Your task to perform on an android device: change keyboard looks Image 0: 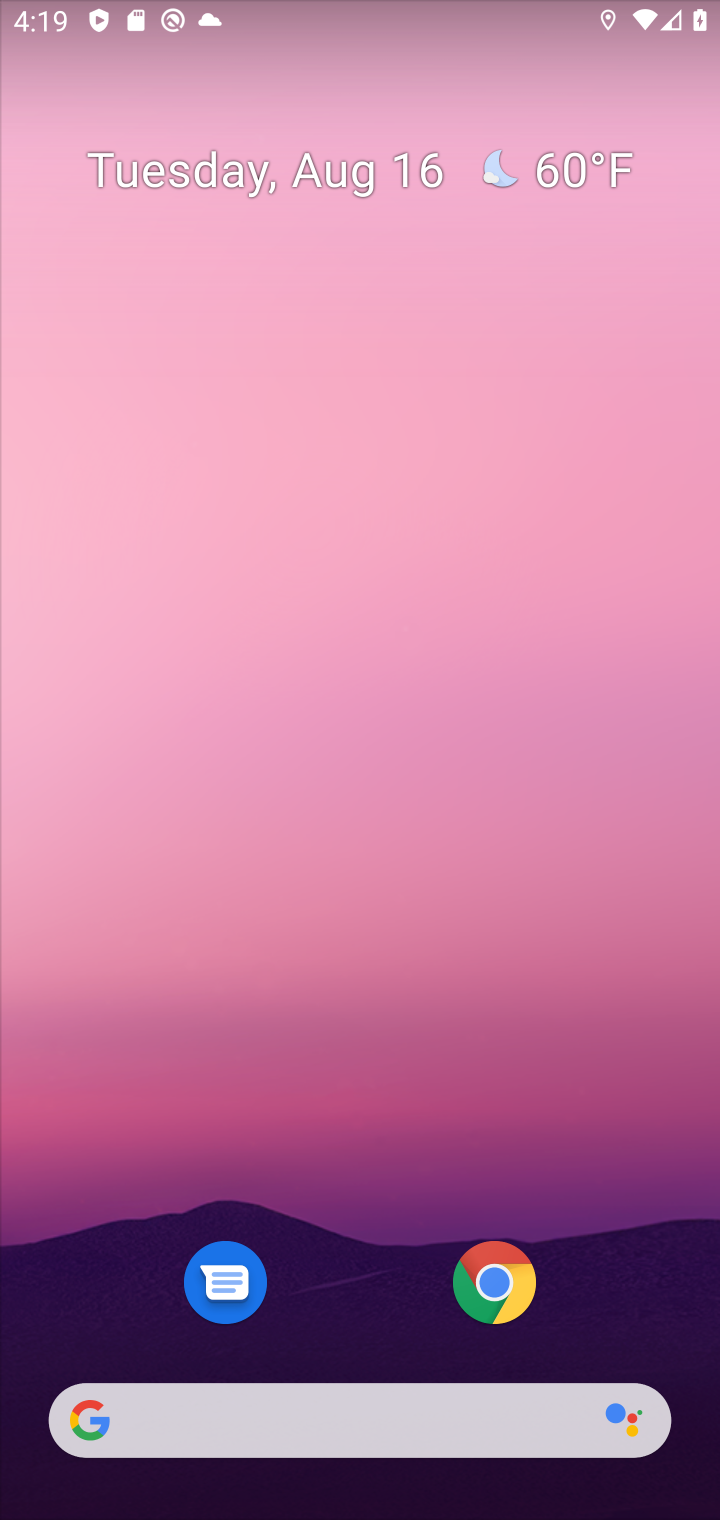
Step 0: drag from (353, 1279) to (467, 145)
Your task to perform on an android device: change keyboard looks Image 1: 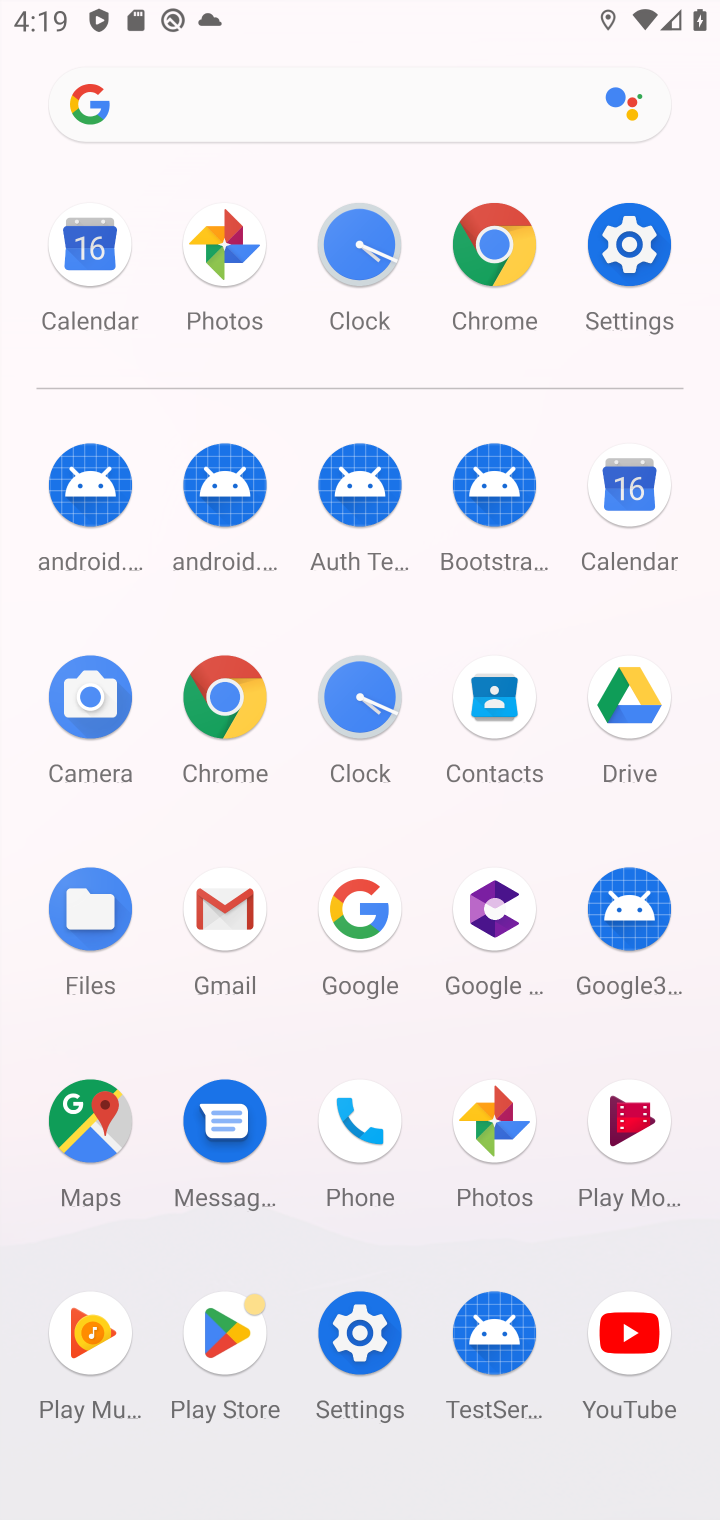
Step 1: click (639, 243)
Your task to perform on an android device: change keyboard looks Image 2: 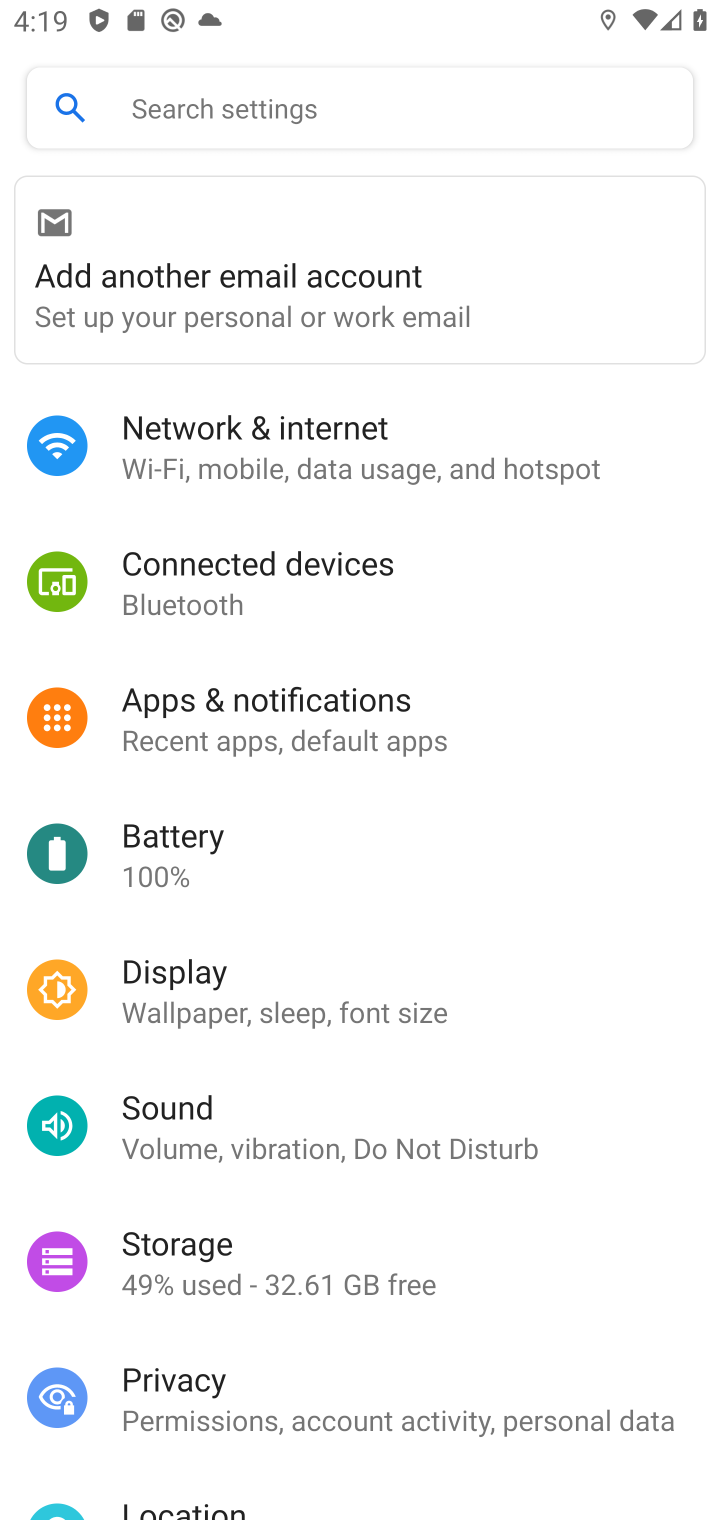
Step 2: drag from (340, 1012) to (620, 39)
Your task to perform on an android device: change keyboard looks Image 3: 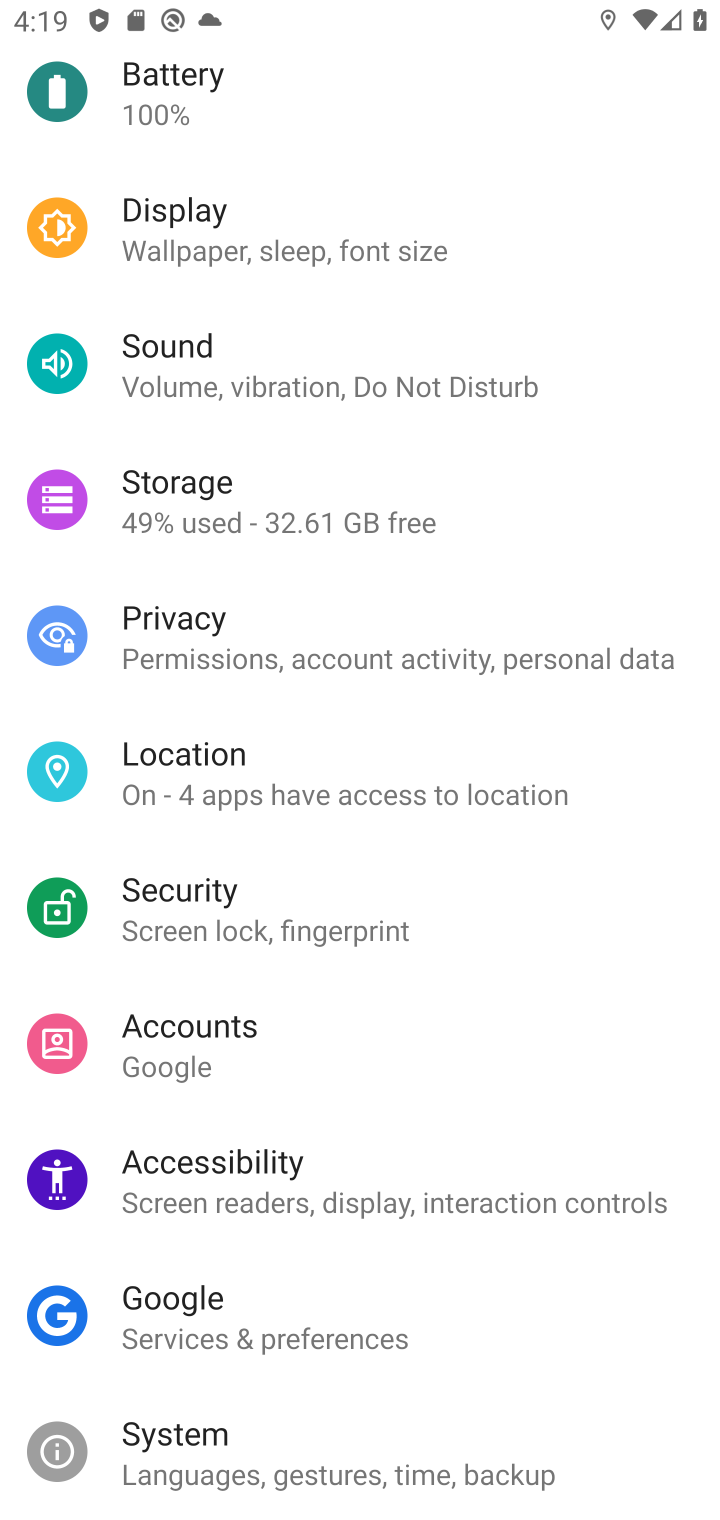
Step 3: drag from (239, 1290) to (421, 35)
Your task to perform on an android device: change keyboard looks Image 4: 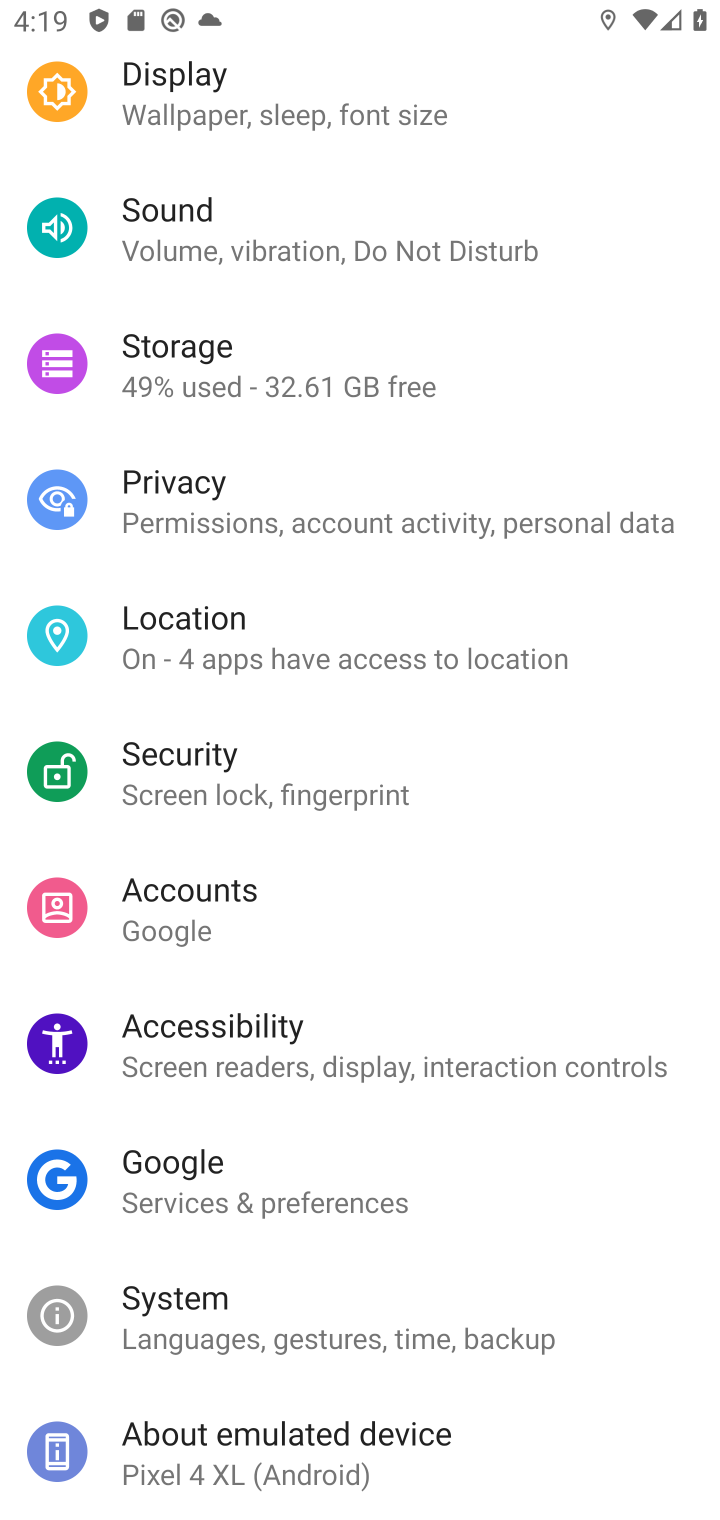
Step 4: click (192, 1318)
Your task to perform on an android device: change keyboard looks Image 5: 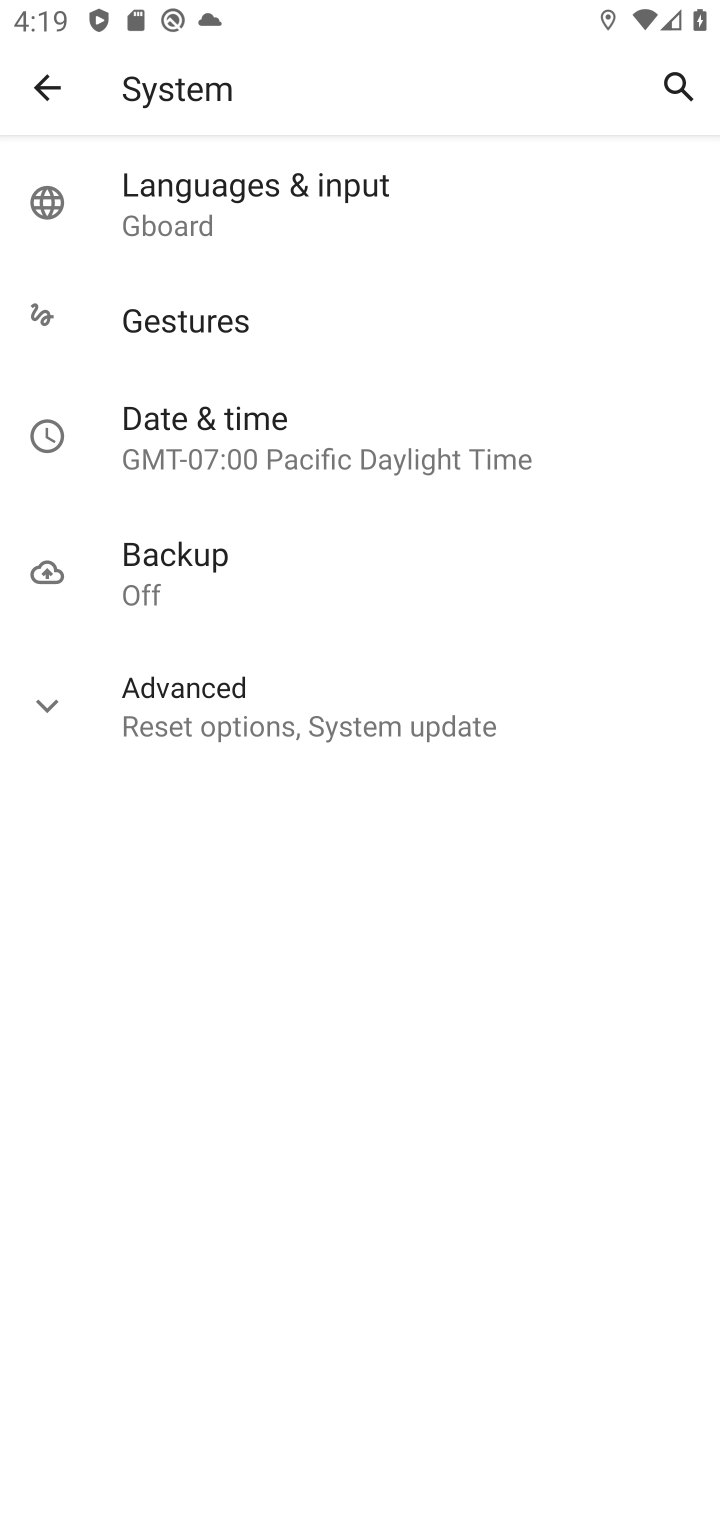
Step 5: click (274, 194)
Your task to perform on an android device: change keyboard looks Image 6: 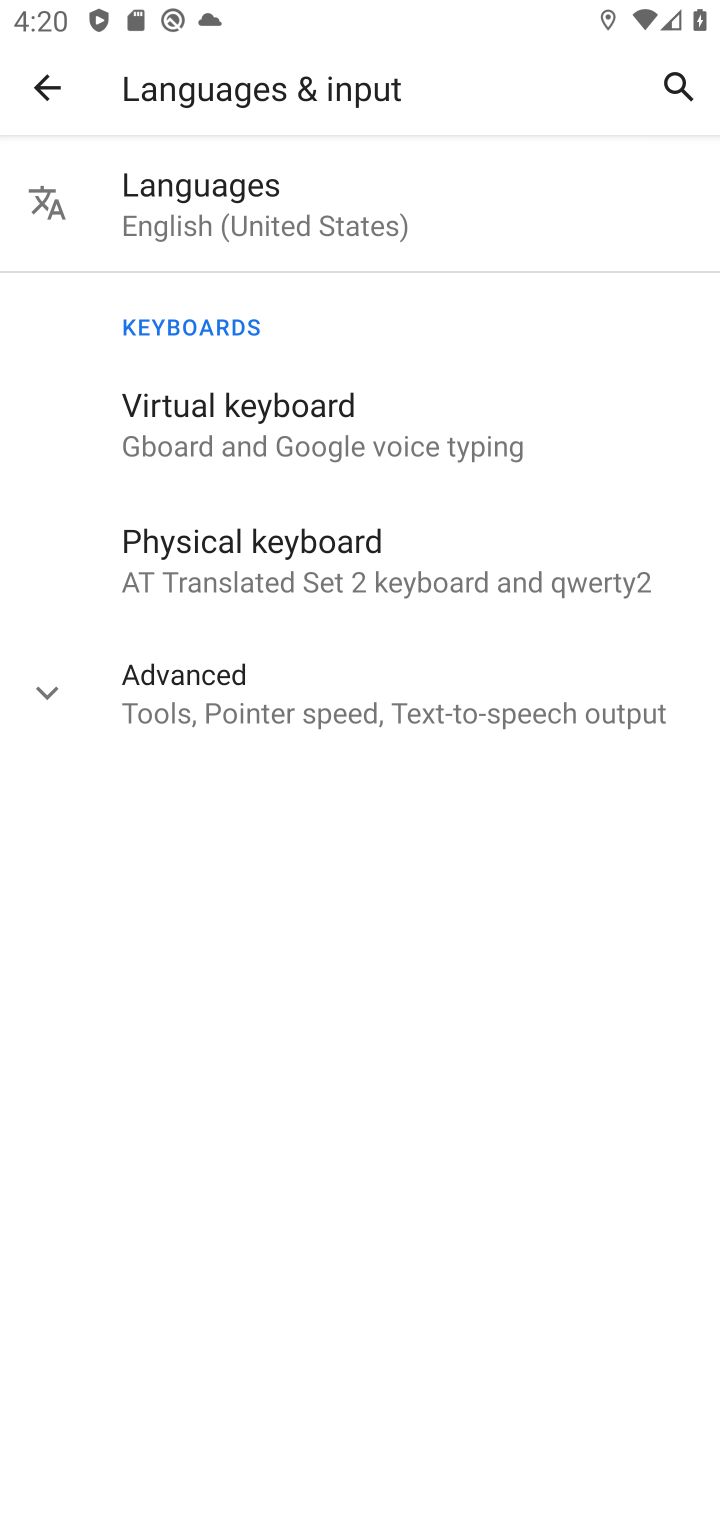
Step 6: click (204, 402)
Your task to perform on an android device: change keyboard looks Image 7: 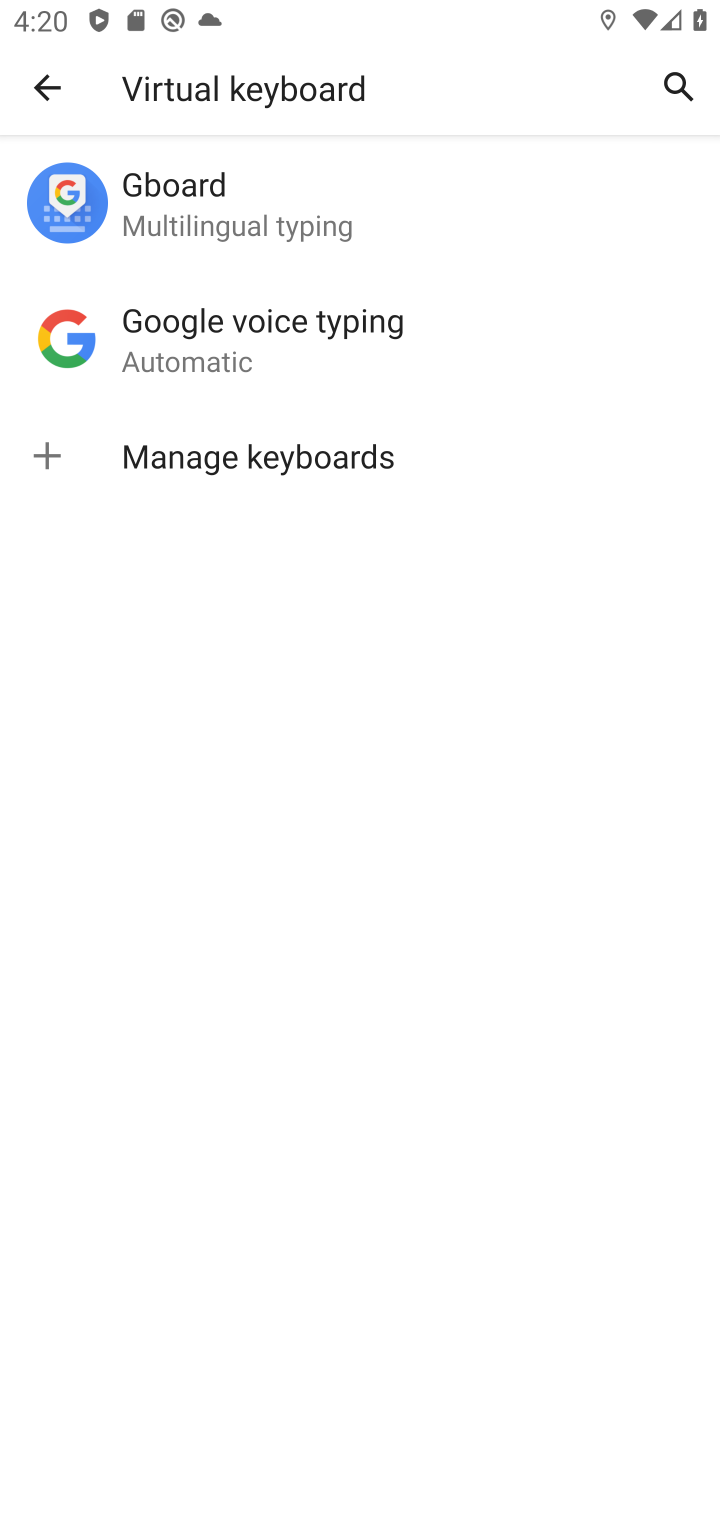
Step 7: click (211, 185)
Your task to perform on an android device: change keyboard looks Image 8: 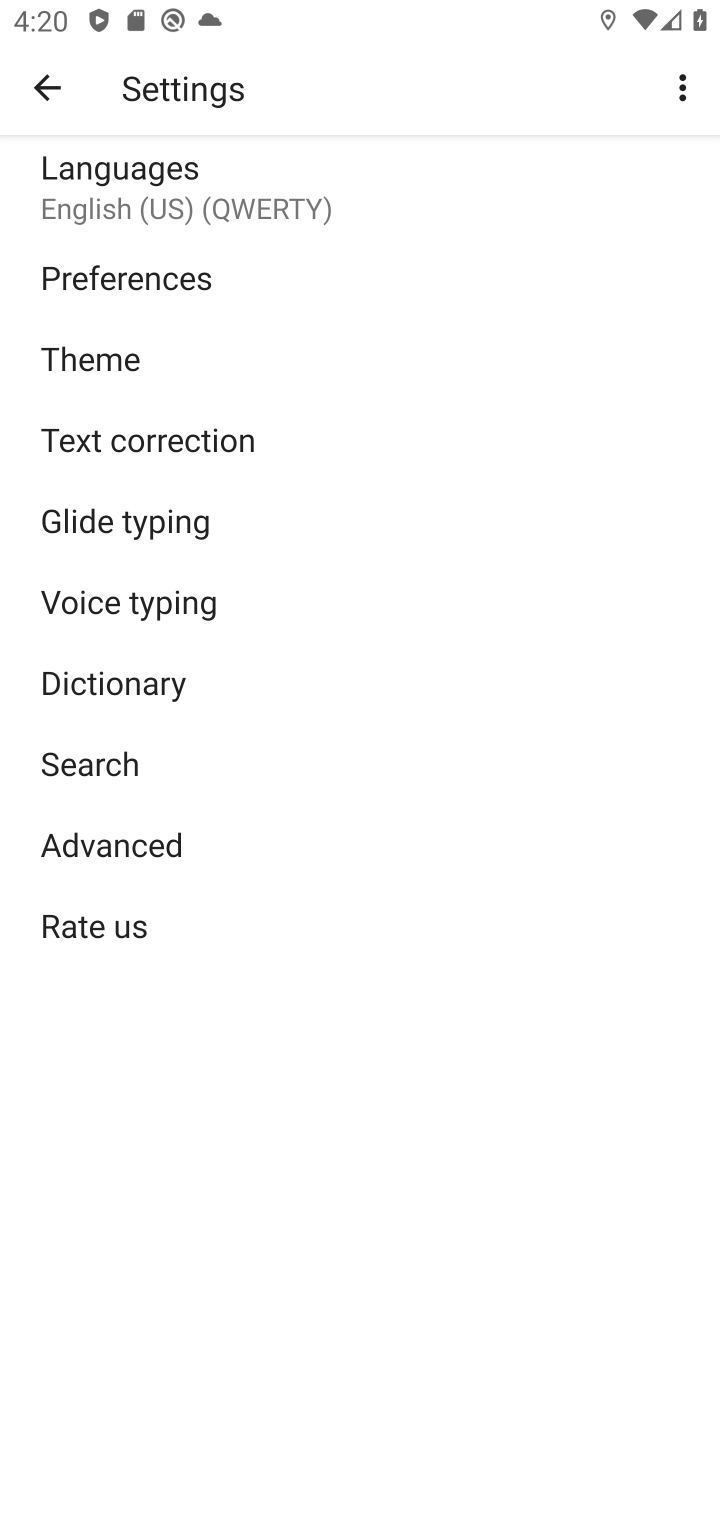
Step 8: click (156, 357)
Your task to perform on an android device: change keyboard looks Image 9: 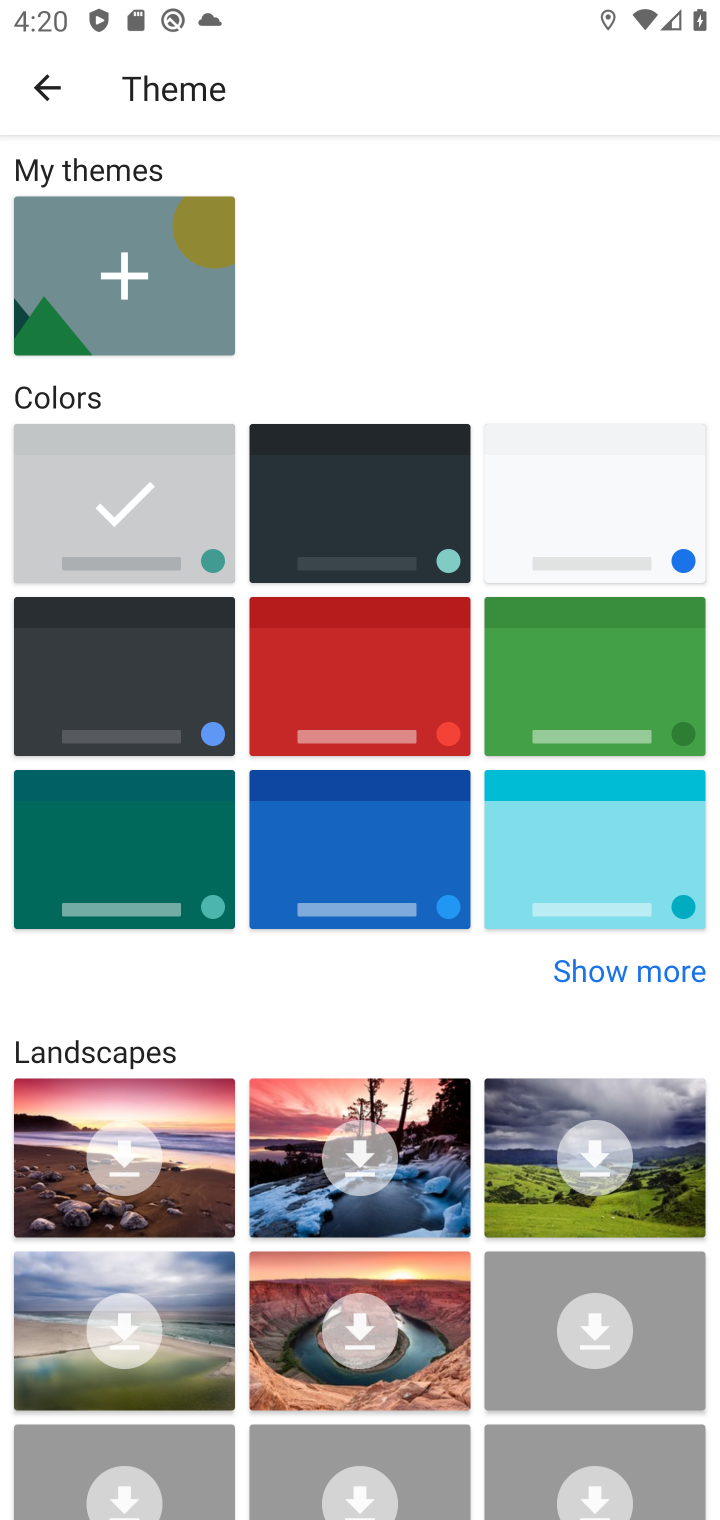
Step 9: click (356, 634)
Your task to perform on an android device: change keyboard looks Image 10: 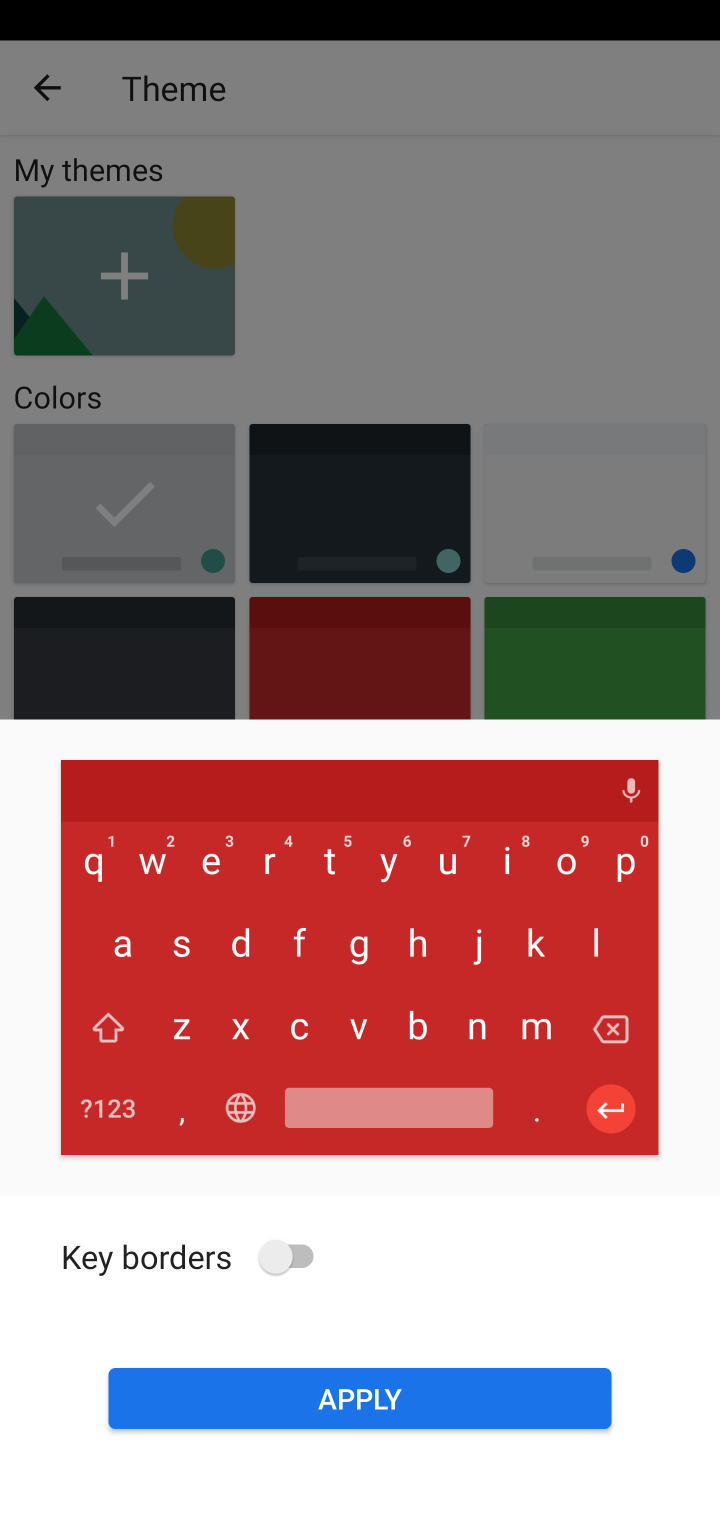
Step 10: click (330, 1409)
Your task to perform on an android device: change keyboard looks Image 11: 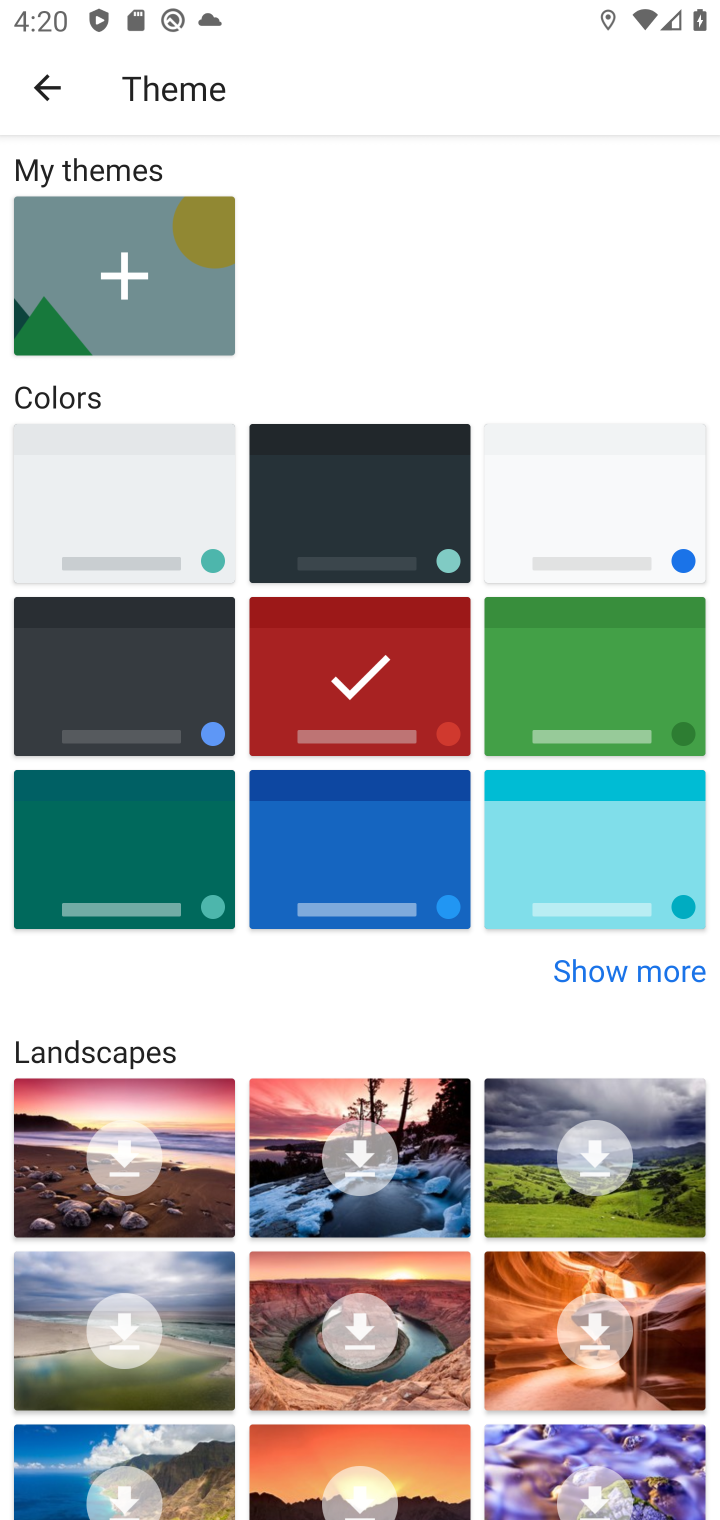
Step 11: task complete